Your task to perform on an android device: turn off priority inbox in the gmail app Image 0: 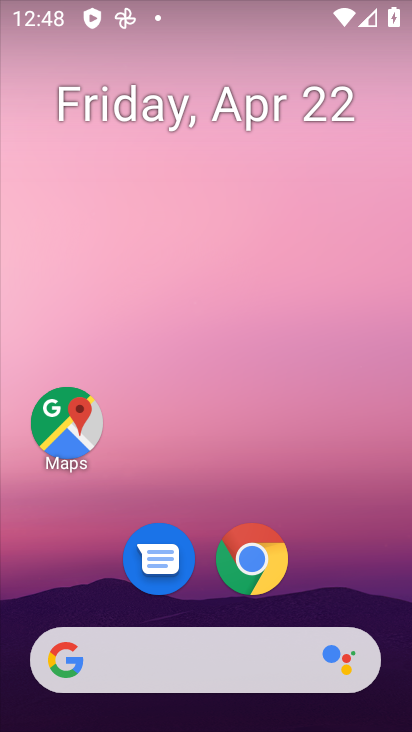
Step 0: drag from (355, 585) to (365, 220)
Your task to perform on an android device: turn off priority inbox in the gmail app Image 1: 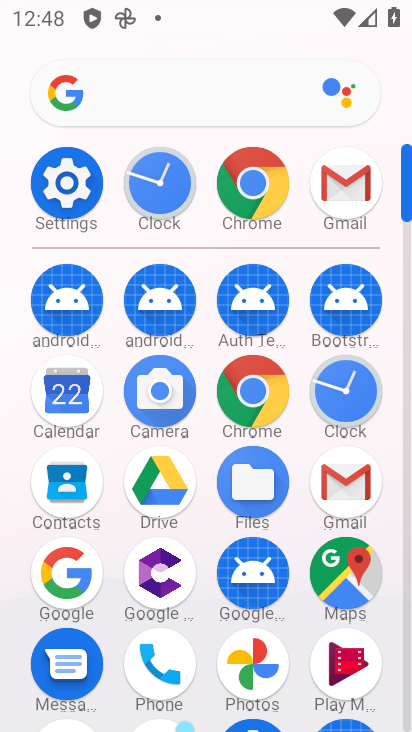
Step 1: click (355, 478)
Your task to perform on an android device: turn off priority inbox in the gmail app Image 2: 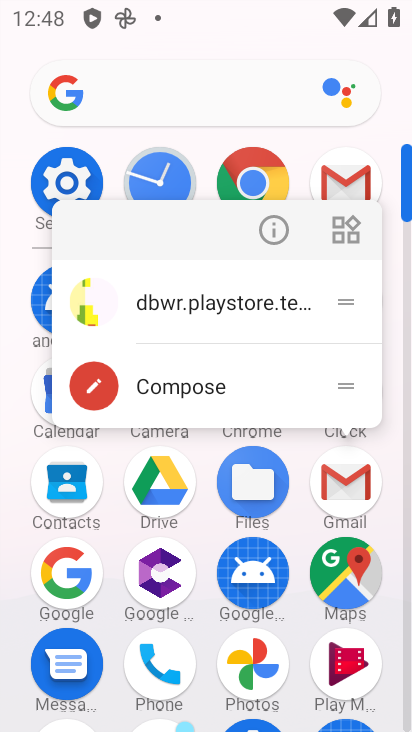
Step 2: click (331, 476)
Your task to perform on an android device: turn off priority inbox in the gmail app Image 3: 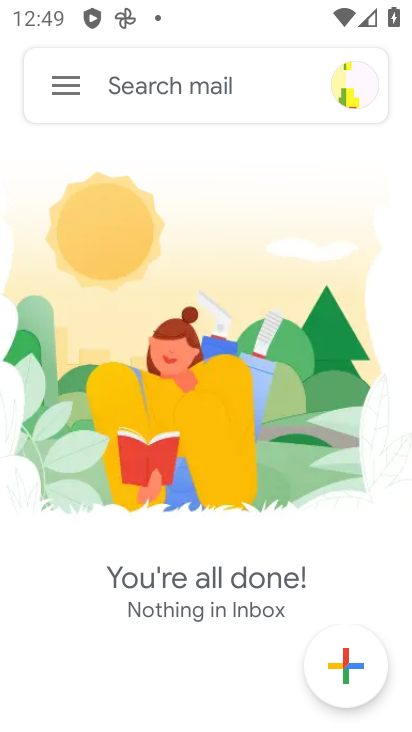
Step 3: click (73, 89)
Your task to perform on an android device: turn off priority inbox in the gmail app Image 4: 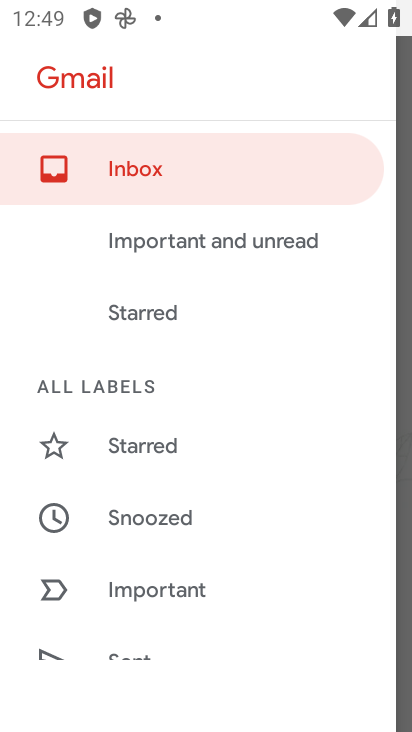
Step 4: drag from (328, 490) to (330, 411)
Your task to perform on an android device: turn off priority inbox in the gmail app Image 5: 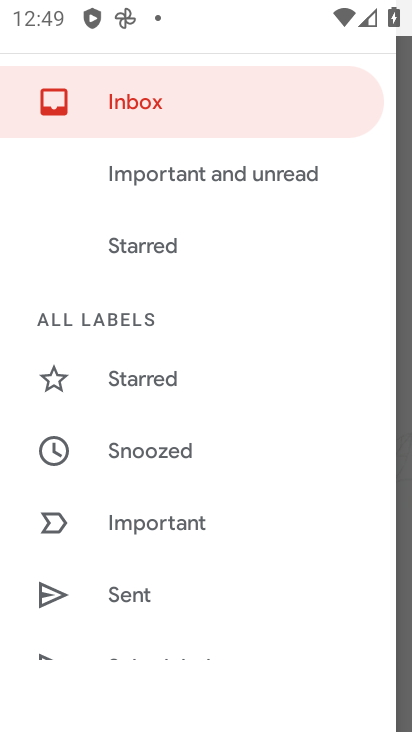
Step 5: drag from (326, 534) to (317, 414)
Your task to perform on an android device: turn off priority inbox in the gmail app Image 6: 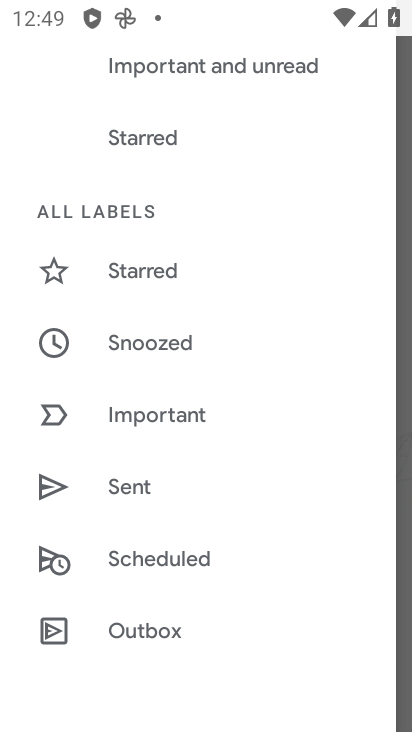
Step 6: drag from (318, 543) to (325, 433)
Your task to perform on an android device: turn off priority inbox in the gmail app Image 7: 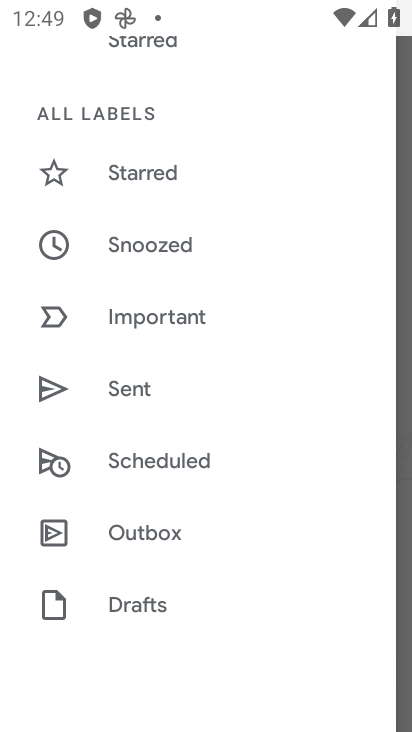
Step 7: drag from (317, 538) to (316, 418)
Your task to perform on an android device: turn off priority inbox in the gmail app Image 8: 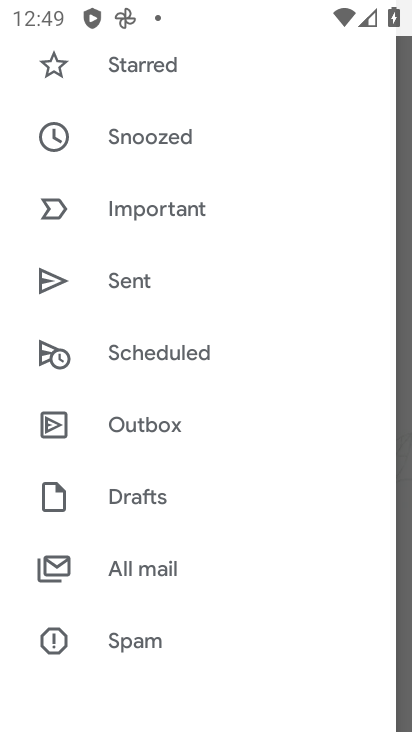
Step 8: drag from (303, 533) to (312, 422)
Your task to perform on an android device: turn off priority inbox in the gmail app Image 9: 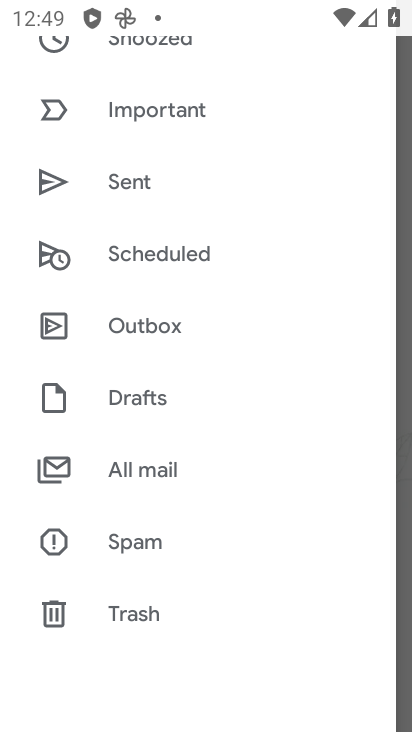
Step 9: drag from (309, 527) to (321, 410)
Your task to perform on an android device: turn off priority inbox in the gmail app Image 10: 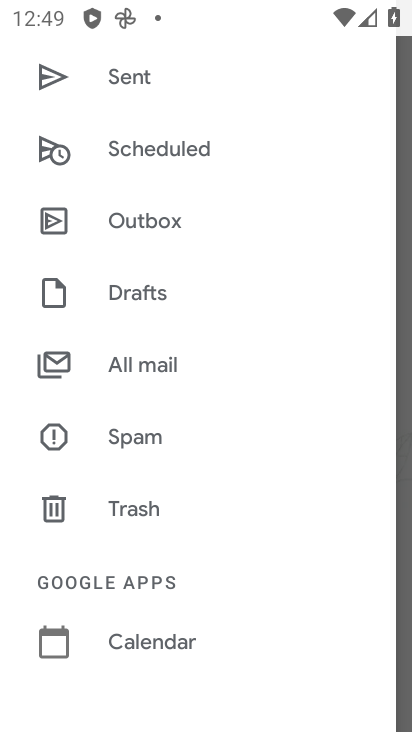
Step 10: drag from (308, 522) to (319, 420)
Your task to perform on an android device: turn off priority inbox in the gmail app Image 11: 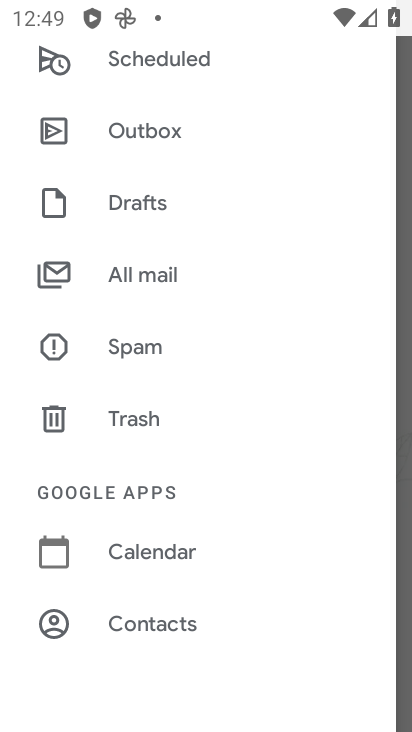
Step 11: drag from (312, 503) to (314, 386)
Your task to perform on an android device: turn off priority inbox in the gmail app Image 12: 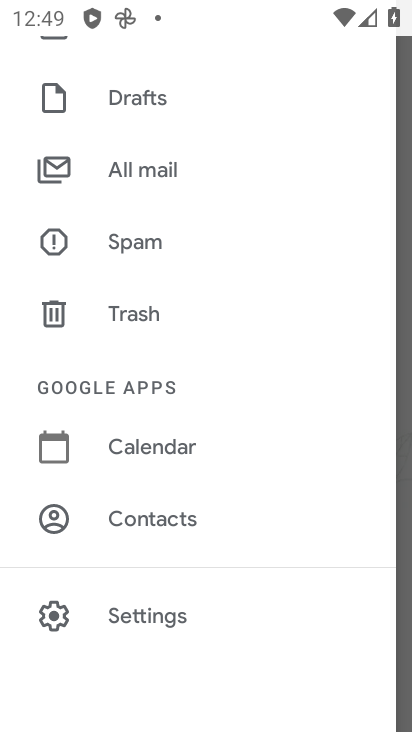
Step 12: drag from (296, 533) to (291, 392)
Your task to perform on an android device: turn off priority inbox in the gmail app Image 13: 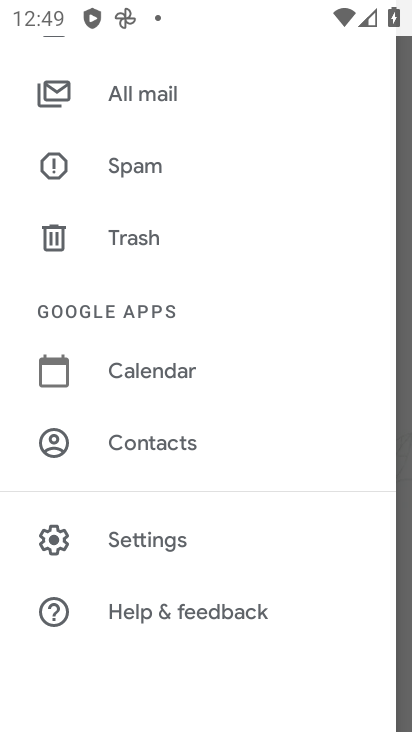
Step 13: click (180, 542)
Your task to perform on an android device: turn off priority inbox in the gmail app Image 14: 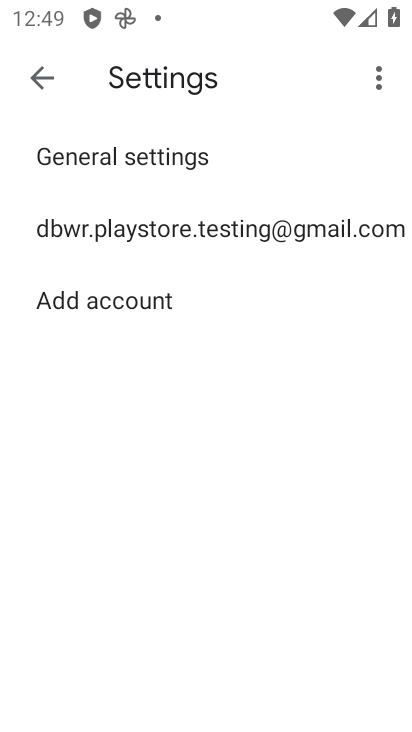
Step 14: click (274, 225)
Your task to perform on an android device: turn off priority inbox in the gmail app Image 15: 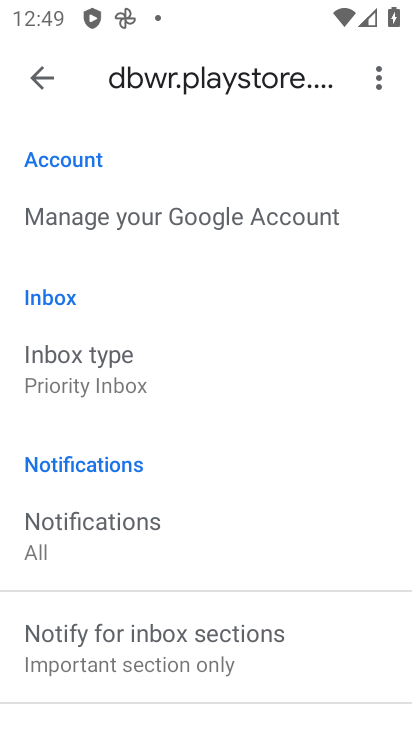
Step 15: drag from (326, 552) to (335, 394)
Your task to perform on an android device: turn off priority inbox in the gmail app Image 16: 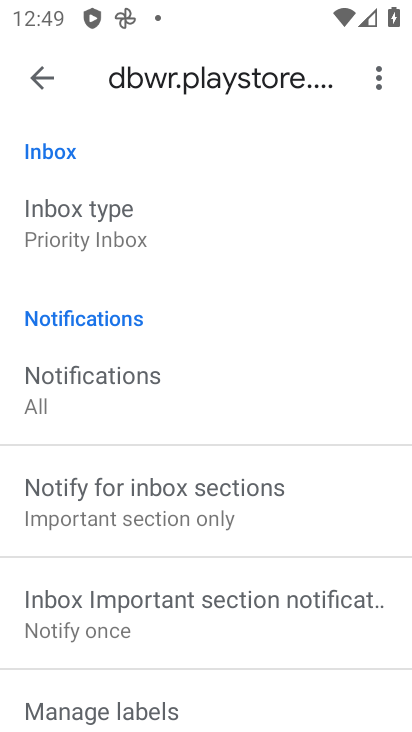
Step 16: drag from (342, 531) to (343, 393)
Your task to perform on an android device: turn off priority inbox in the gmail app Image 17: 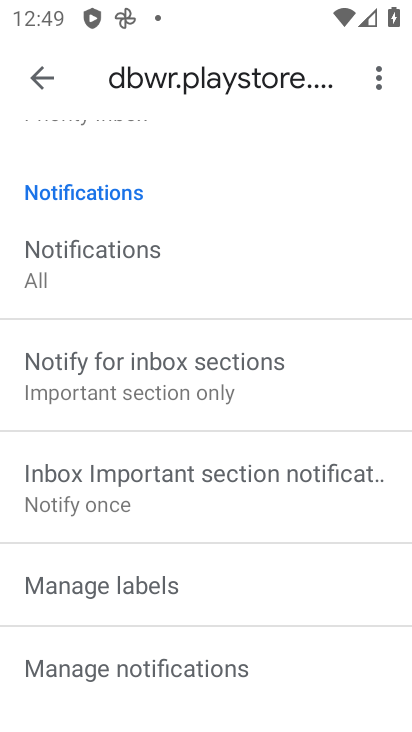
Step 17: drag from (327, 580) to (331, 421)
Your task to perform on an android device: turn off priority inbox in the gmail app Image 18: 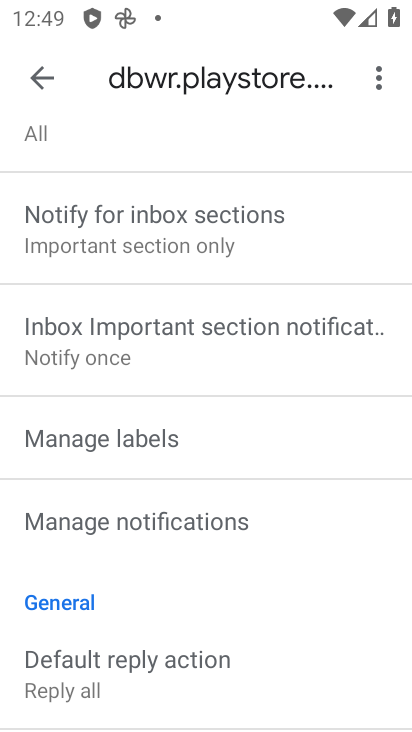
Step 18: drag from (323, 615) to (324, 436)
Your task to perform on an android device: turn off priority inbox in the gmail app Image 19: 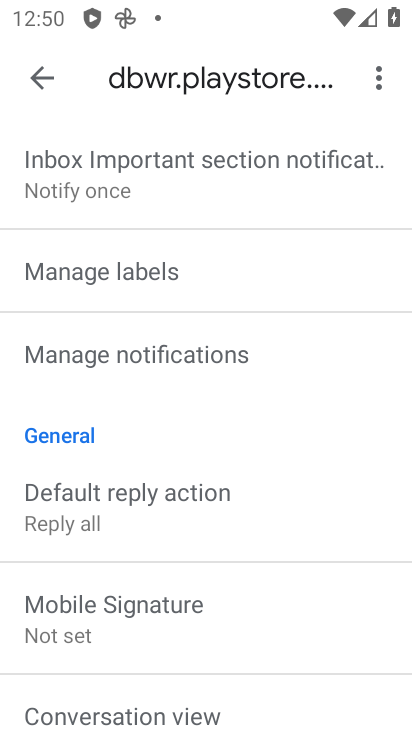
Step 19: drag from (349, 636) to (345, 340)
Your task to perform on an android device: turn off priority inbox in the gmail app Image 20: 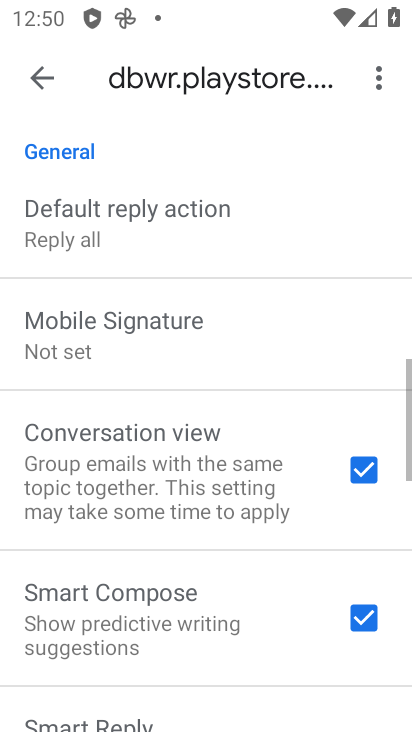
Step 20: drag from (337, 297) to (308, 485)
Your task to perform on an android device: turn off priority inbox in the gmail app Image 21: 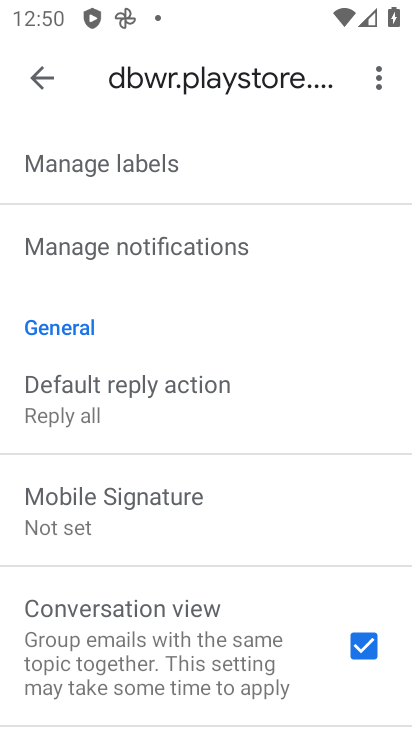
Step 21: drag from (306, 309) to (307, 476)
Your task to perform on an android device: turn off priority inbox in the gmail app Image 22: 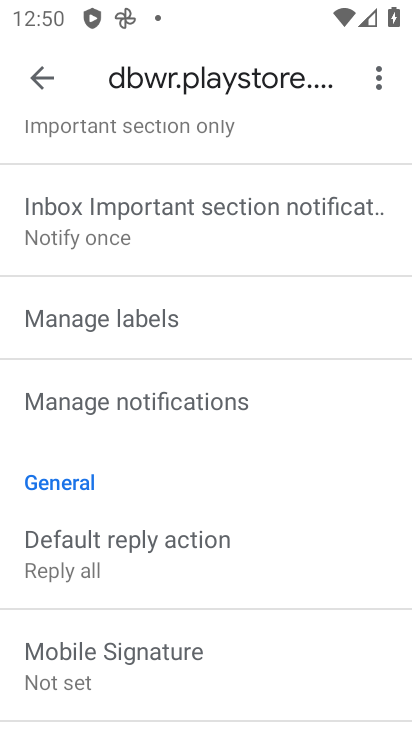
Step 22: drag from (319, 271) to (321, 433)
Your task to perform on an android device: turn off priority inbox in the gmail app Image 23: 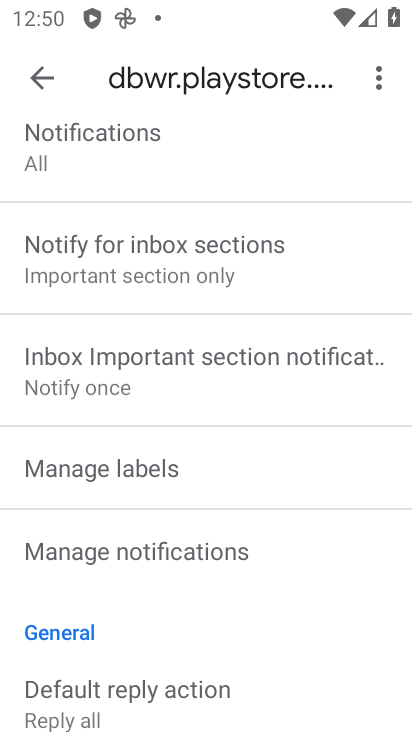
Step 23: drag from (332, 220) to (307, 400)
Your task to perform on an android device: turn off priority inbox in the gmail app Image 24: 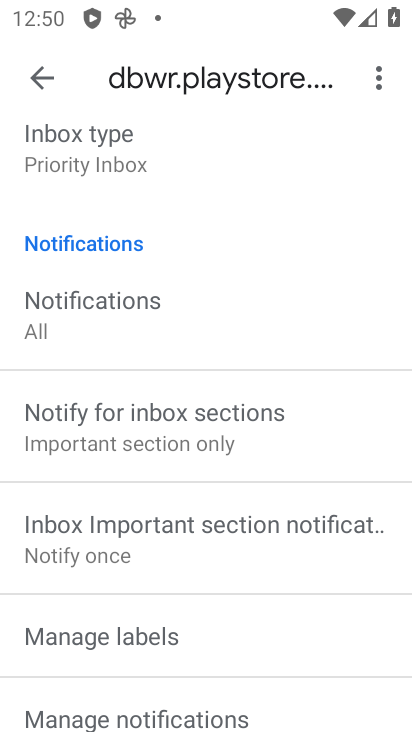
Step 24: drag from (327, 207) to (314, 378)
Your task to perform on an android device: turn off priority inbox in the gmail app Image 25: 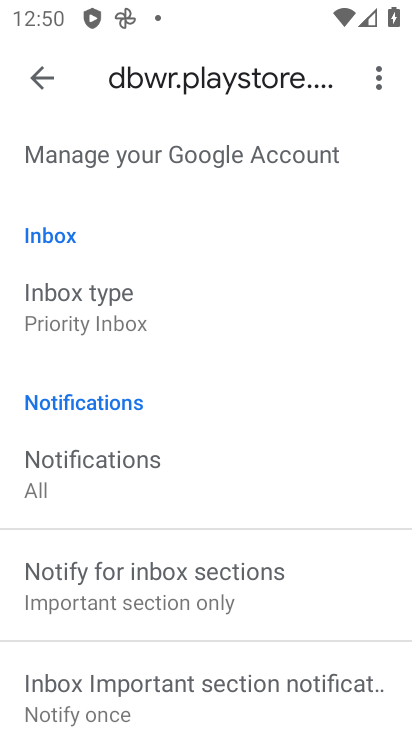
Step 25: click (88, 307)
Your task to perform on an android device: turn off priority inbox in the gmail app Image 26: 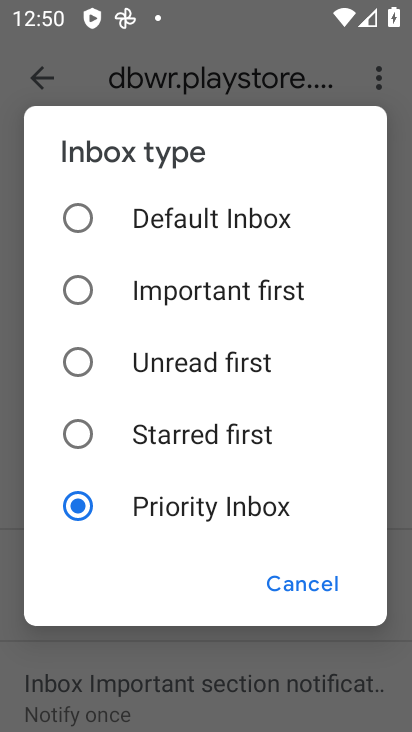
Step 26: click (69, 216)
Your task to perform on an android device: turn off priority inbox in the gmail app Image 27: 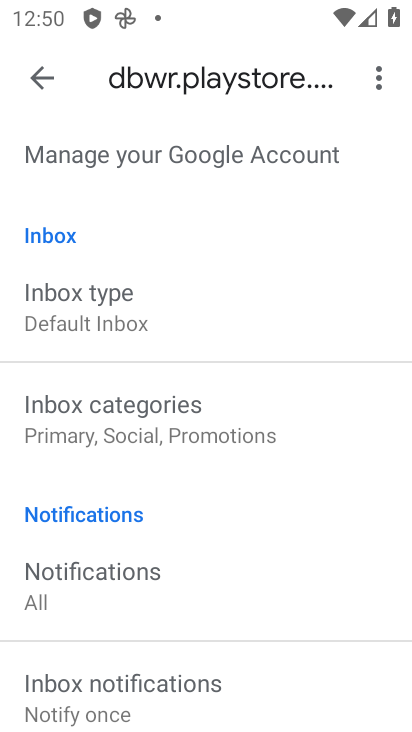
Step 27: task complete